Your task to perform on an android device: turn off wifi Image 0: 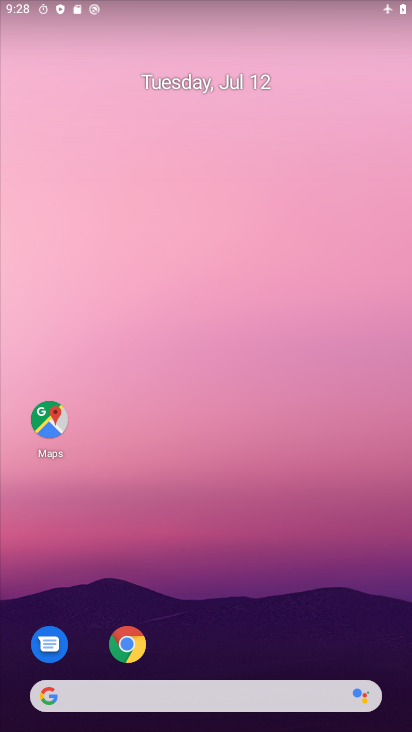
Step 0: drag from (243, 653) to (174, 7)
Your task to perform on an android device: turn off wifi Image 1: 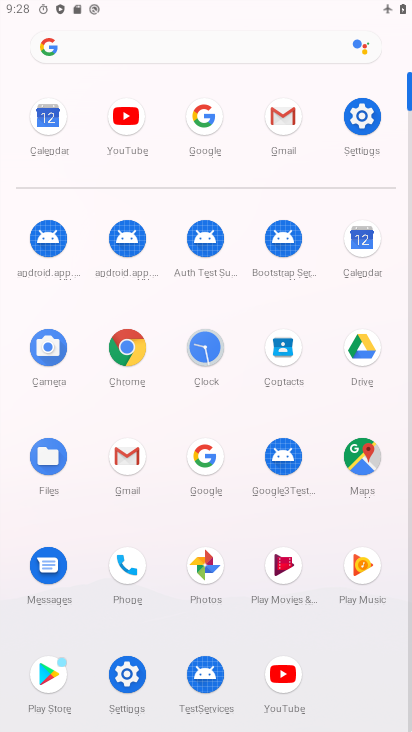
Step 1: click (356, 106)
Your task to perform on an android device: turn off wifi Image 2: 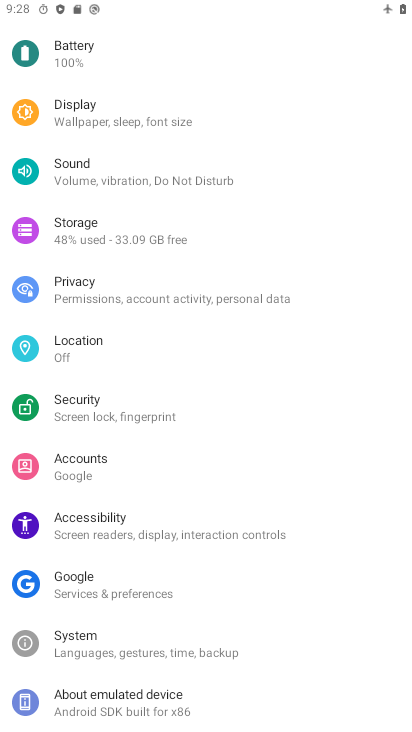
Step 2: drag from (174, 223) to (171, 597)
Your task to perform on an android device: turn off wifi Image 3: 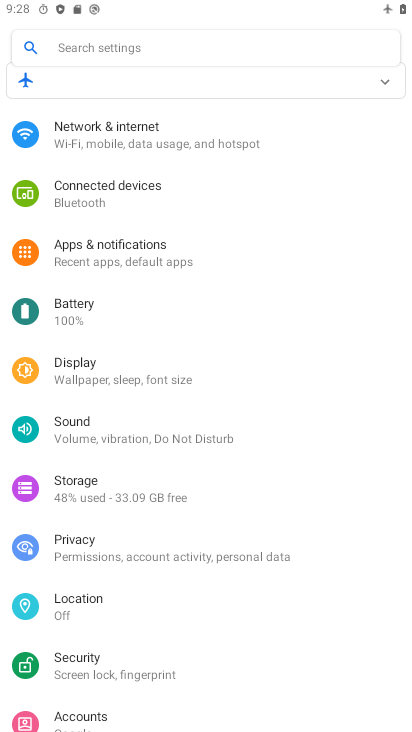
Step 3: click (180, 138)
Your task to perform on an android device: turn off wifi Image 4: 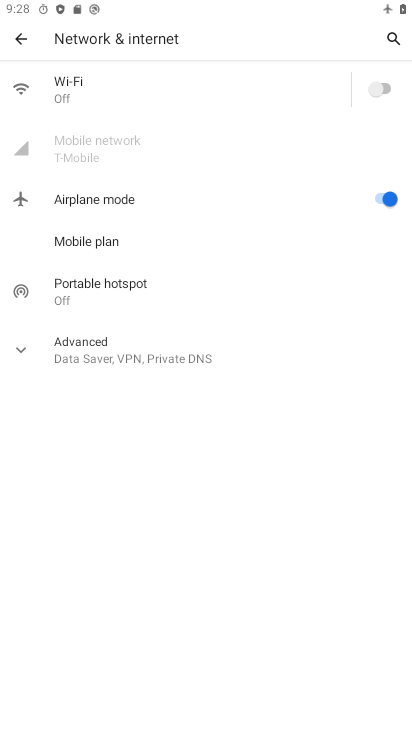
Step 4: click (152, 96)
Your task to perform on an android device: turn off wifi Image 5: 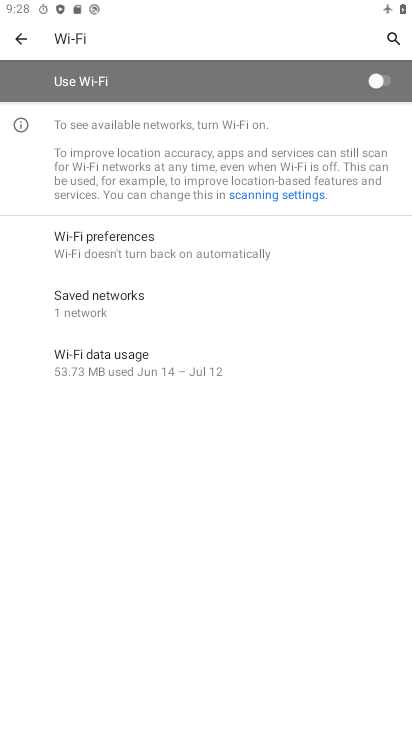
Step 5: task complete